Your task to perform on an android device: change notifications settings Image 0: 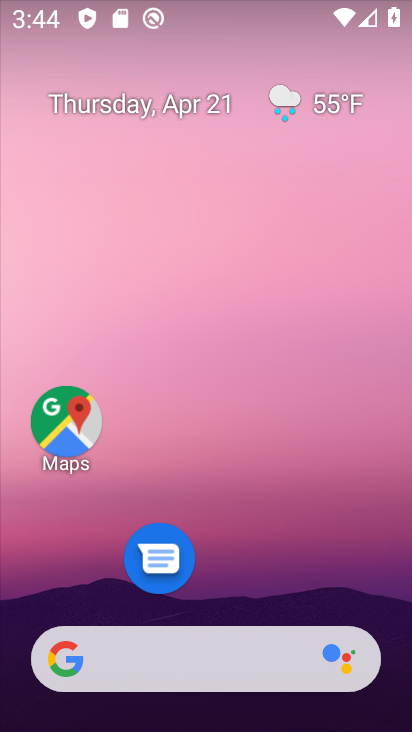
Step 0: drag from (263, 587) to (235, 146)
Your task to perform on an android device: change notifications settings Image 1: 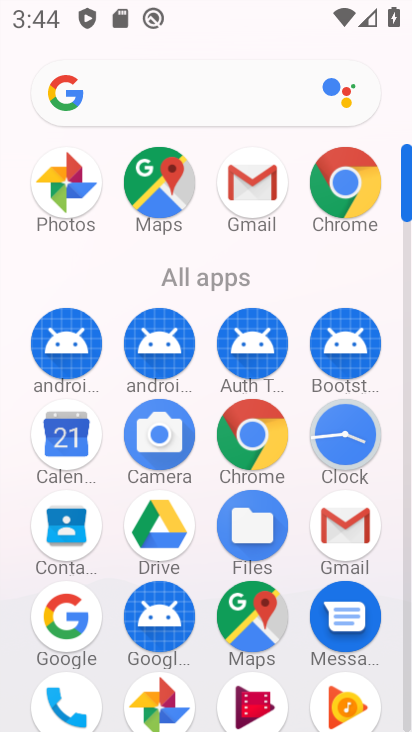
Step 1: drag from (204, 587) to (224, 285)
Your task to perform on an android device: change notifications settings Image 2: 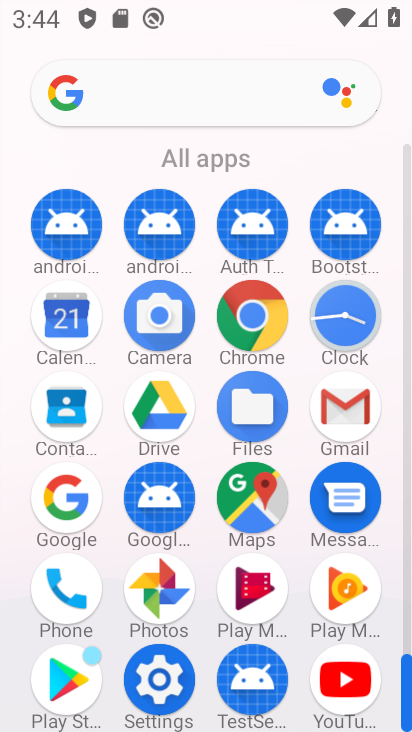
Step 2: click (173, 679)
Your task to perform on an android device: change notifications settings Image 3: 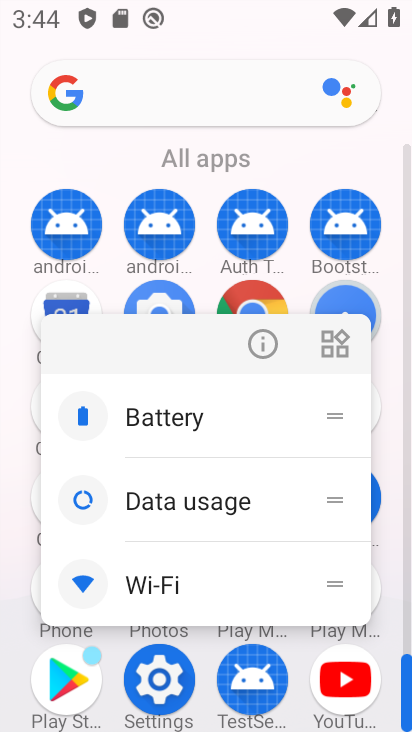
Step 3: click (151, 686)
Your task to perform on an android device: change notifications settings Image 4: 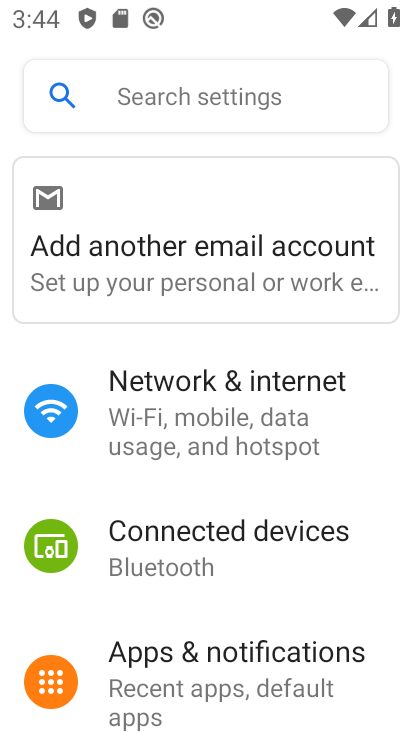
Step 4: click (227, 649)
Your task to perform on an android device: change notifications settings Image 5: 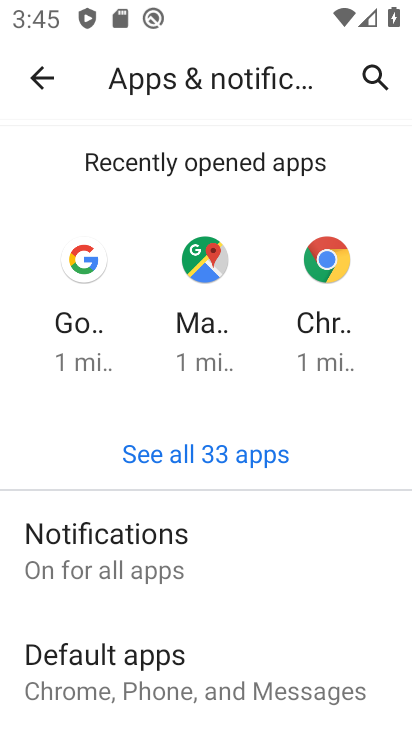
Step 5: click (184, 569)
Your task to perform on an android device: change notifications settings Image 6: 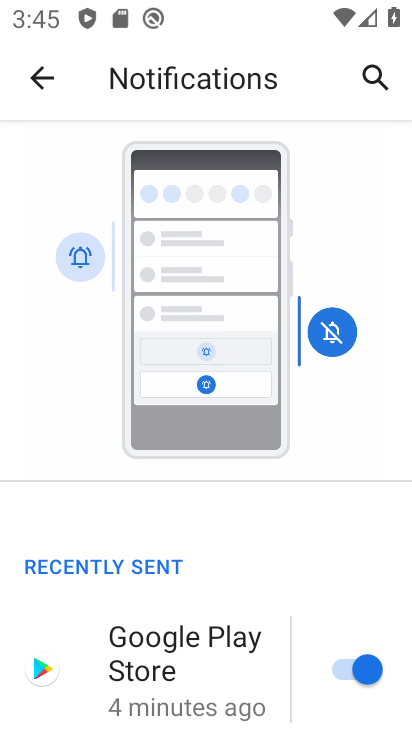
Step 6: click (360, 670)
Your task to perform on an android device: change notifications settings Image 7: 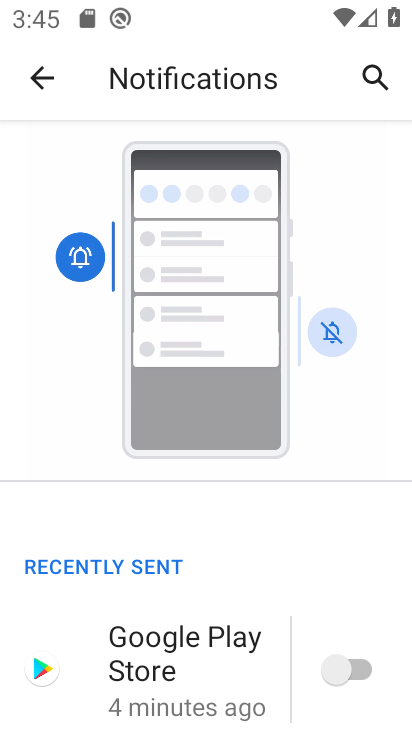
Step 7: task complete